Your task to perform on an android device: toggle improve location accuracy Image 0: 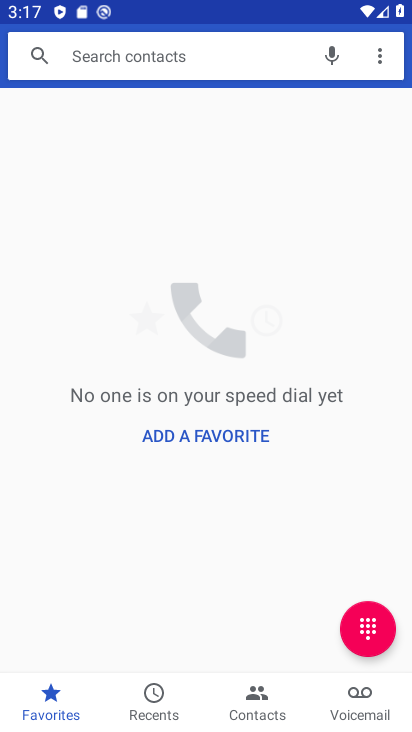
Step 0: press home button
Your task to perform on an android device: toggle improve location accuracy Image 1: 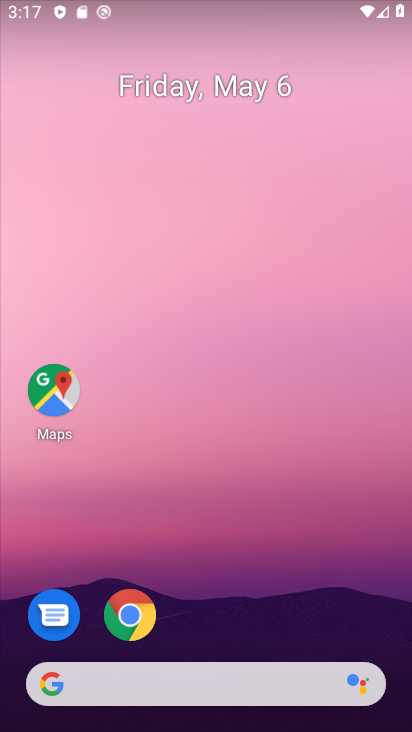
Step 1: drag from (260, 574) to (290, 118)
Your task to perform on an android device: toggle improve location accuracy Image 2: 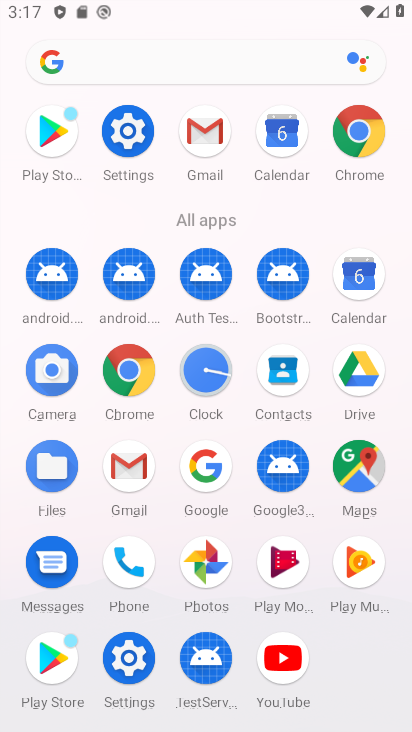
Step 2: click (120, 141)
Your task to perform on an android device: toggle improve location accuracy Image 3: 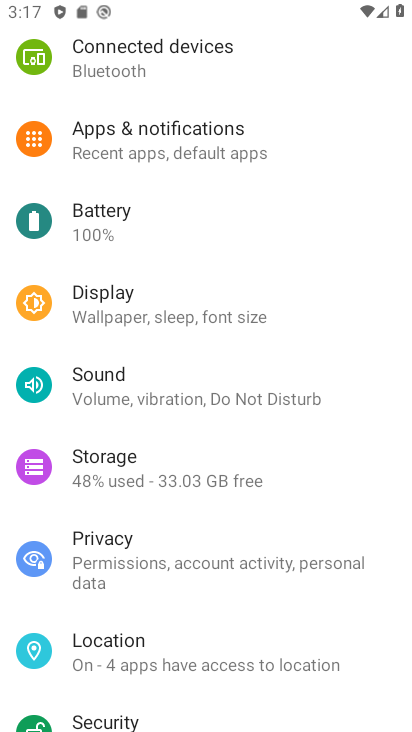
Step 3: click (150, 656)
Your task to perform on an android device: toggle improve location accuracy Image 4: 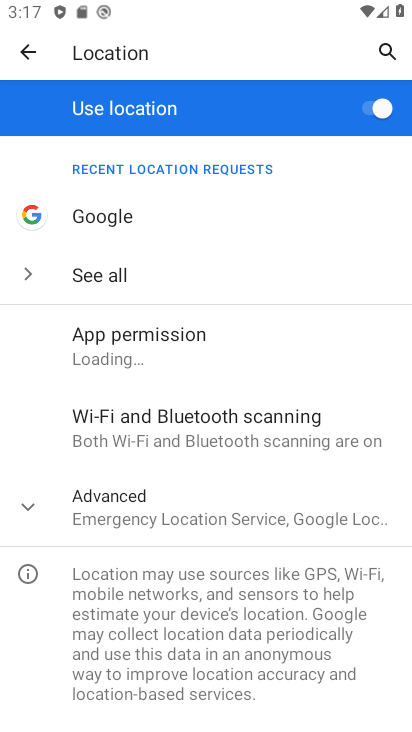
Step 4: click (207, 515)
Your task to perform on an android device: toggle improve location accuracy Image 5: 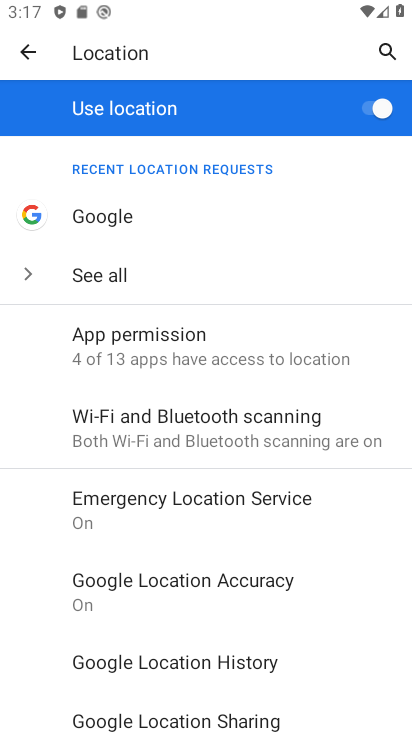
Step 5: click (239, 579)
Your task to perform on an android device: toggle improve location accuracy Image 6: 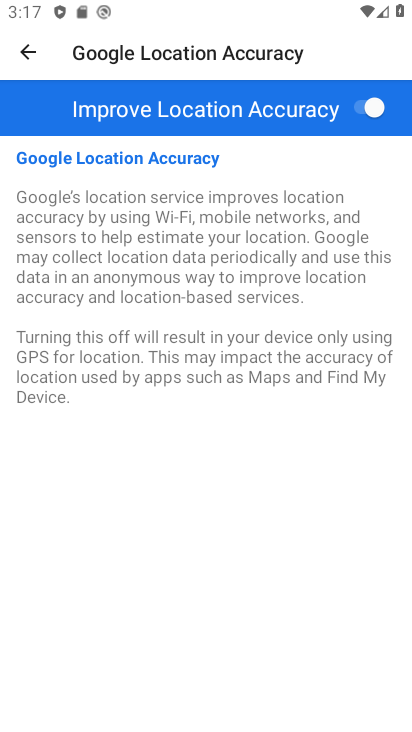
Step 6: click (358, 106)
Your task to perform on an android device: toggle improve location accuracy Image 7: 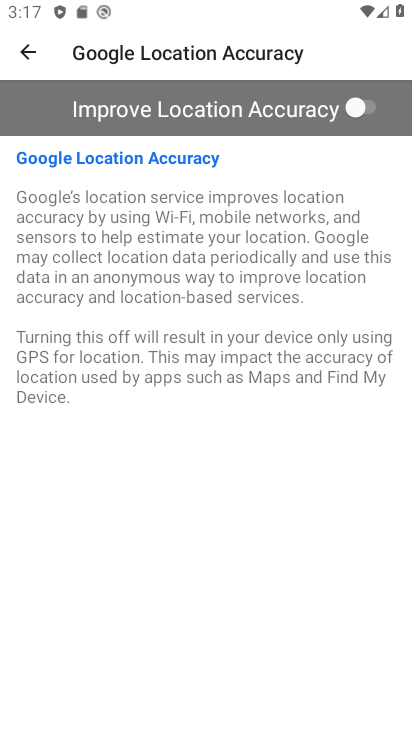
Step 7: task complete